Your task to perform on an android device: Open internet settings Image 0: 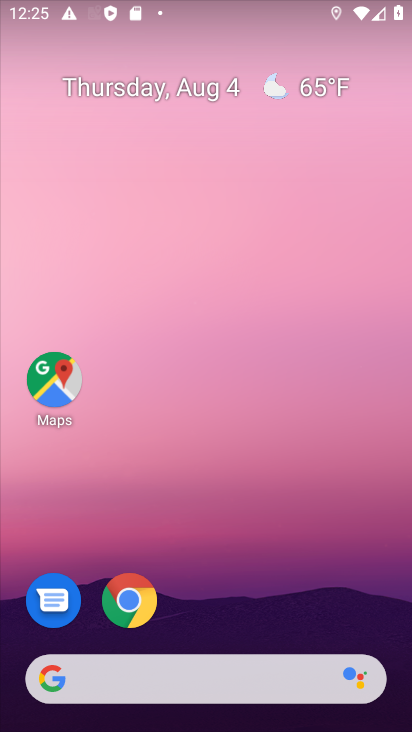
Step 0: drag from (220, 628) to (237, 282)
Your task to perform on an android device: Open internet settings Image 1: 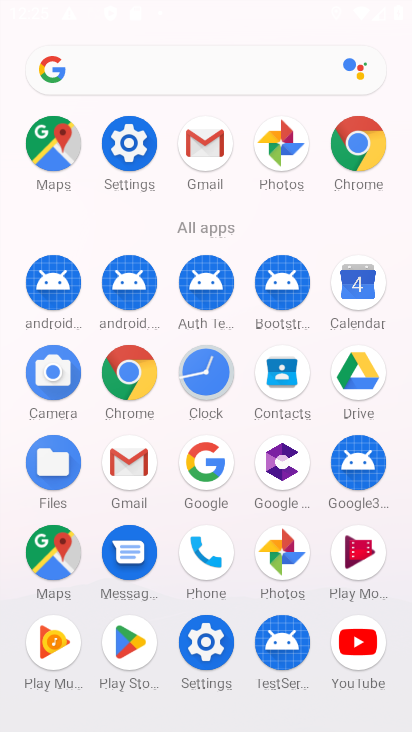
Step 1: click (134, 163)
Your task to perform on an android device: Open internet settings Image 2: 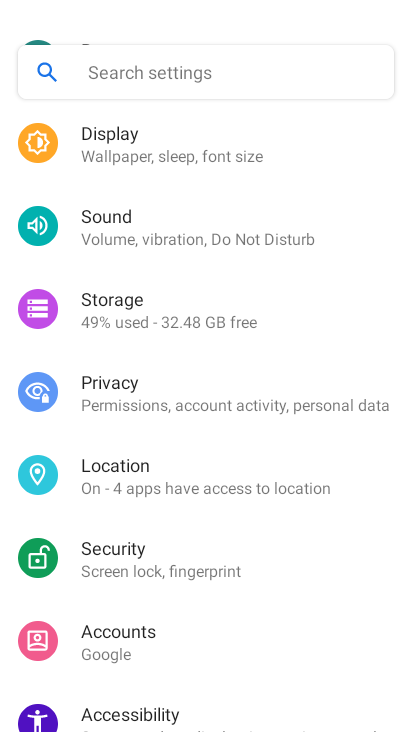
Step 2: drag from (159, 194) to (167, 408)
Your task to perform on an android device: Open internet settings Image 3: 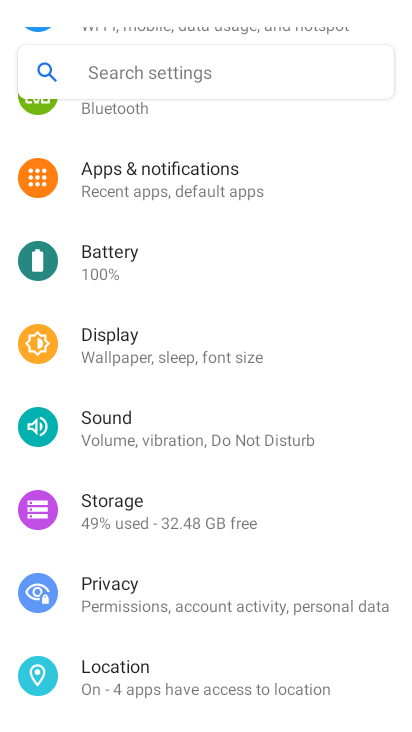
Step 3: drag from (151, 214) to (150, 501)
Your task to perform on an android device: Open internet settings Image 4: 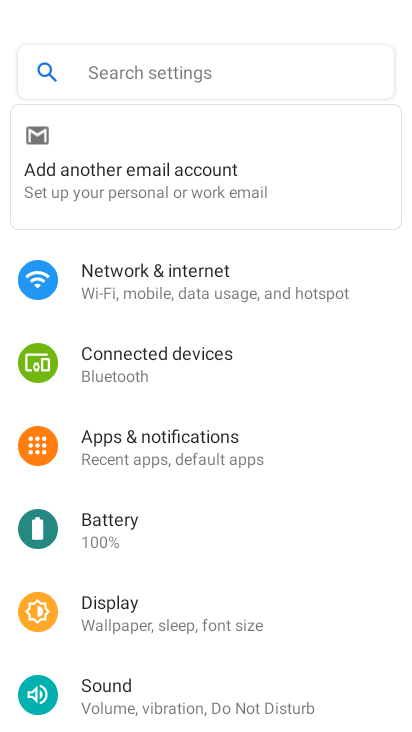
Step 4: click (140, 270)
Your task to perform on an android device: Open internet settings Image 5: 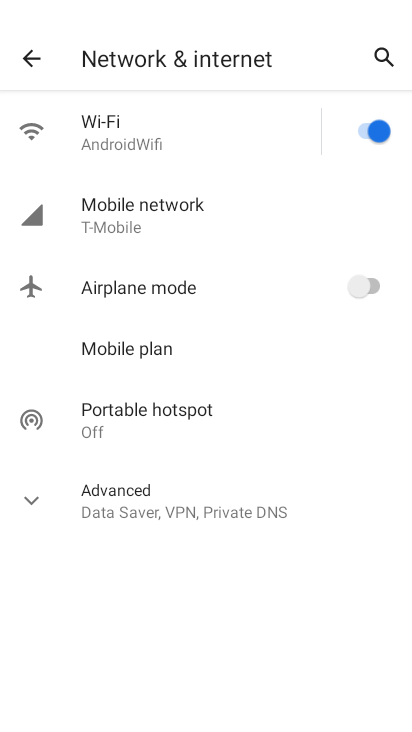
Step 5: click (135, 202)
Your task to perform on an android device: Open internet settings Image 6: 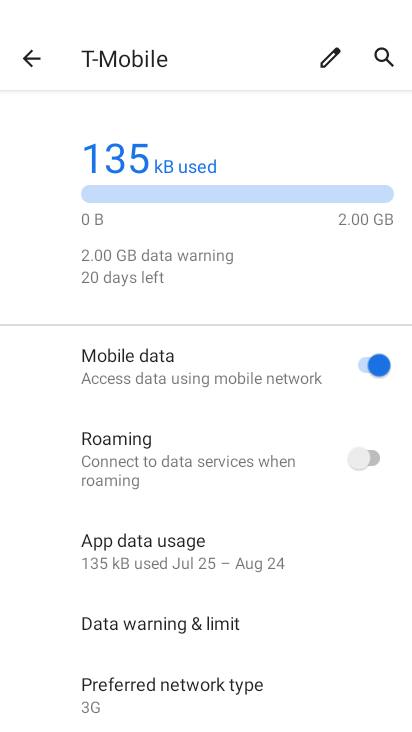
Step 6: task complete